Your task to perform on an android device: Open the calendar and show me this week's events Image 0: 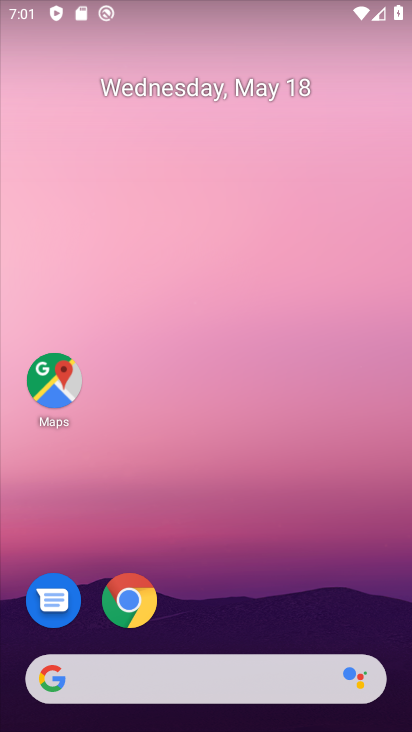
Step 0: press home button
Your task to perform on an android device: Open the calendar and show me this week's events Image 1: 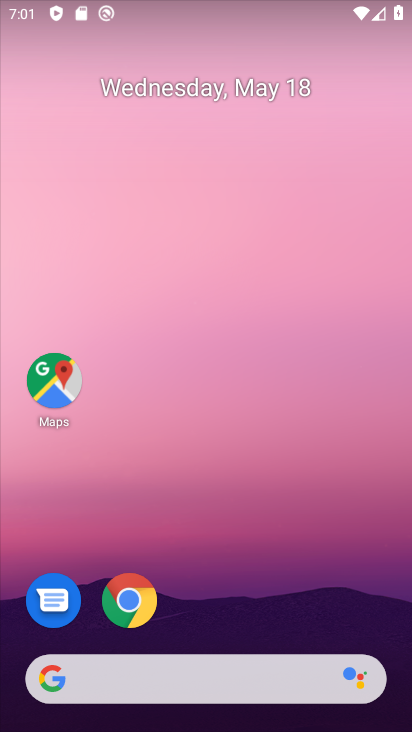
Step 1: drag from (340, 687) to (288, 339)
Your task to perform on an android device: Open the calendar and show me this week's events Image 2: 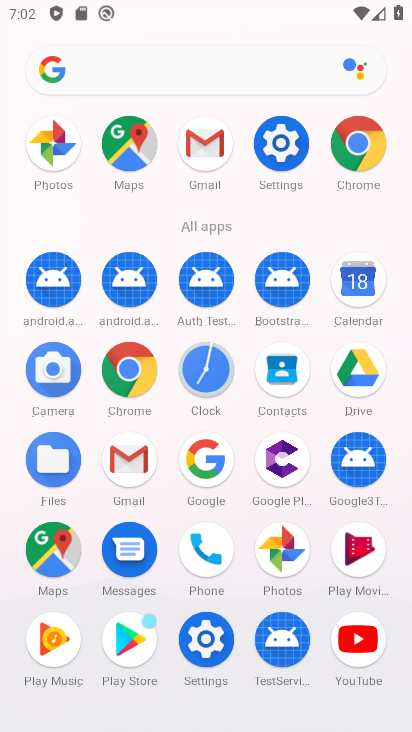
Step 2: click (334, 286)
Your task to perform on an android device: Open the calendar and show me this week's events Image 3: 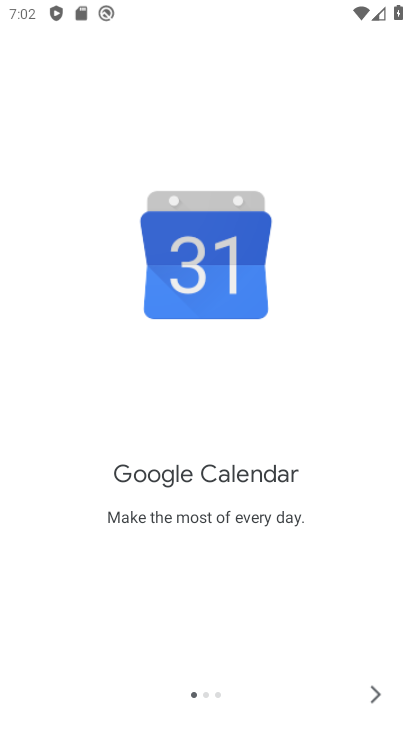
Step 3: click (386, 687)
Your task to perform on an android device: Open the calendar and show me this week's events Image 4: 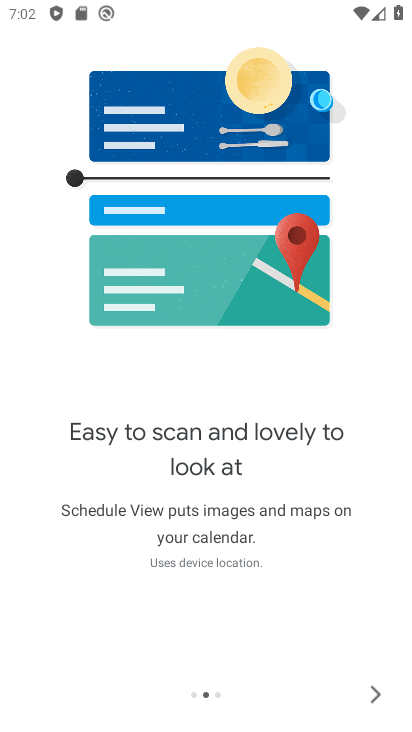
Step 4: click (359, 703)
Your task to perform on an android device: Open the calendar and show me this week's events Image 5: 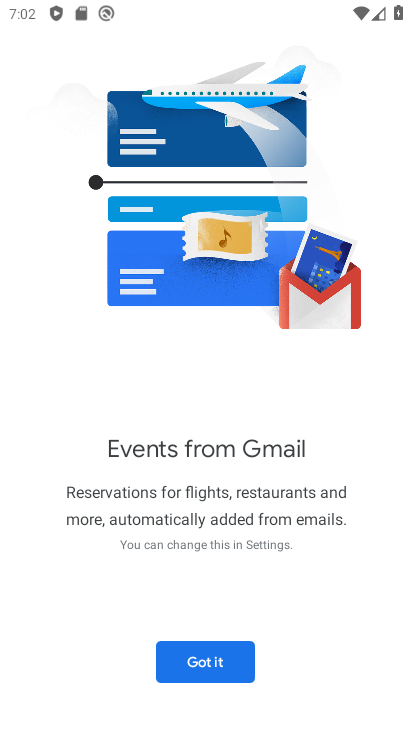
Step 5: click (225, 667)
Your task to perform on an android device: Open the calendar and show me this week's events Image 6: 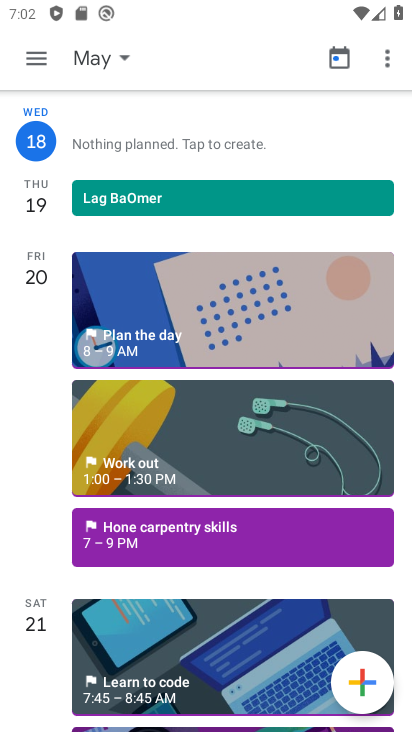
Step 6: click (34, 68)
Your task to perform on an android device: Open the calendar and show me this week's events Image 7: 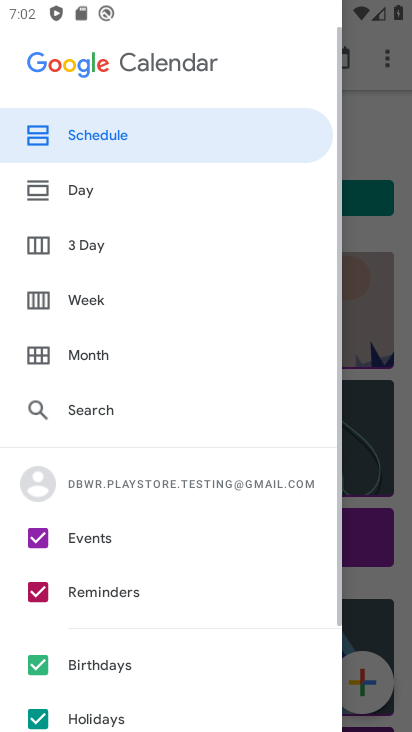
Step 7: click (101, 297)
Your task to perform on an android device: Open the calendar and show me this week's events Image 8: 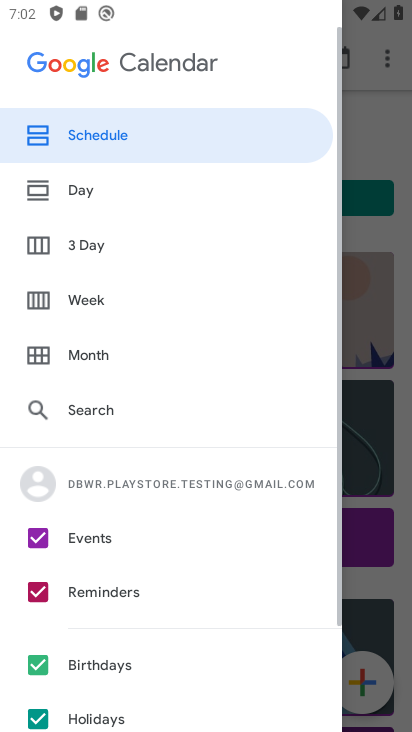
Step 8: click (94, 307)
Your task to perform on an android device: Open the calendar and show me this week's events Image 9: 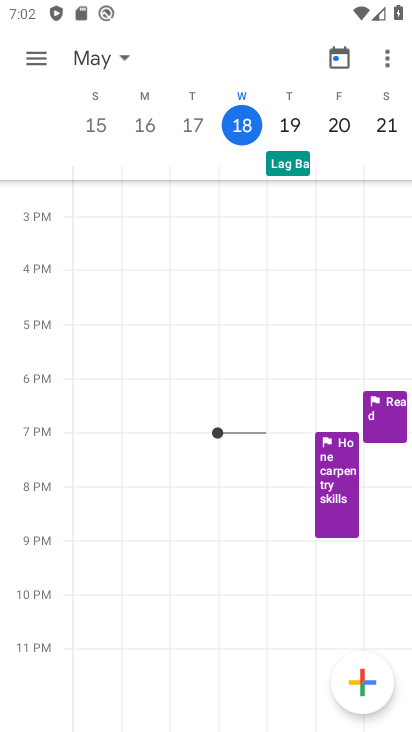
Step 9: task complete